Your task to perform on an android device: Open the Play Movies app and select the watchlist tab. Image 0: 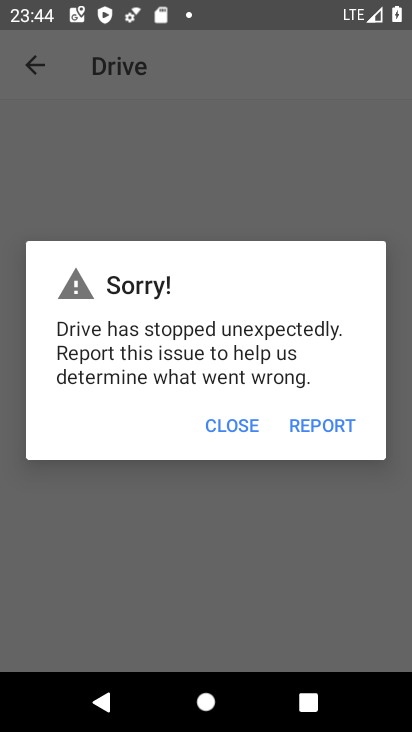
Step 0: press home button
Your task to perform on an android device: Open the Play Movies app and select the watchlist tab. Image 1: 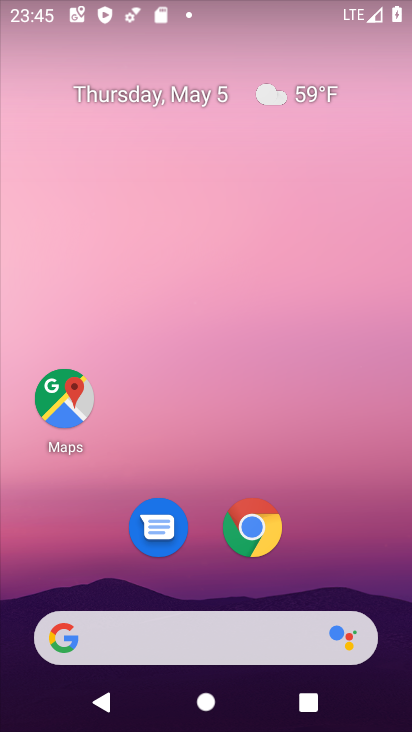
Step 1: drag from (205, 572) to (205, 99)
Your task to perform on an android device: Open the Play Movies app and select the watchlist tab. Image 2: 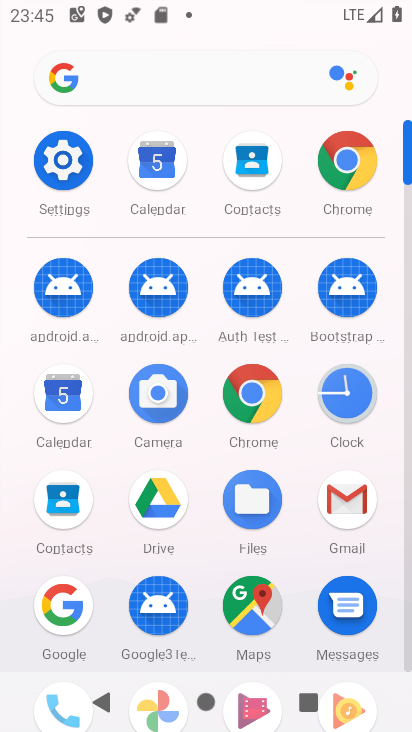
Step 2: drag from (287, 560) to (336, 191)
Your task to perform on an android device: Open the Play Movies app and select the watchlist tab. Image 3: 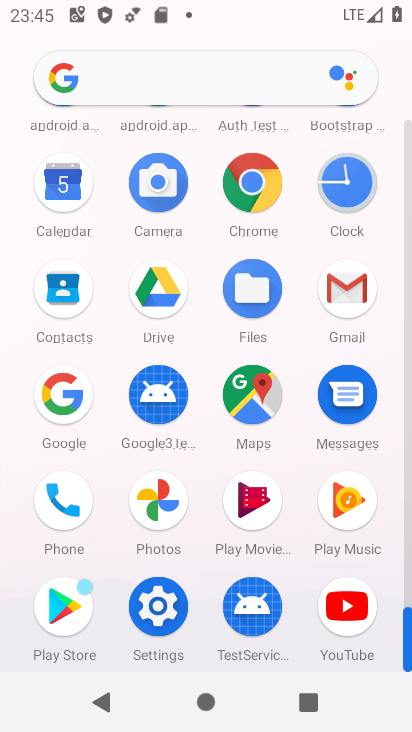
Step 3: click (272, 524)
Your task to perform on an android device: Open the Play Movies app and select the watchlist tab. Image 4: 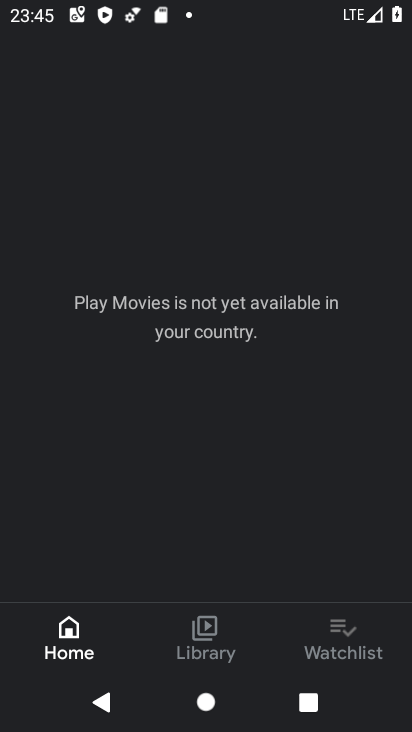
Step 4: click (313, 642)
Your task to perform on an android device: Open the Play Movies app and select the watchlist tab. Image 5: 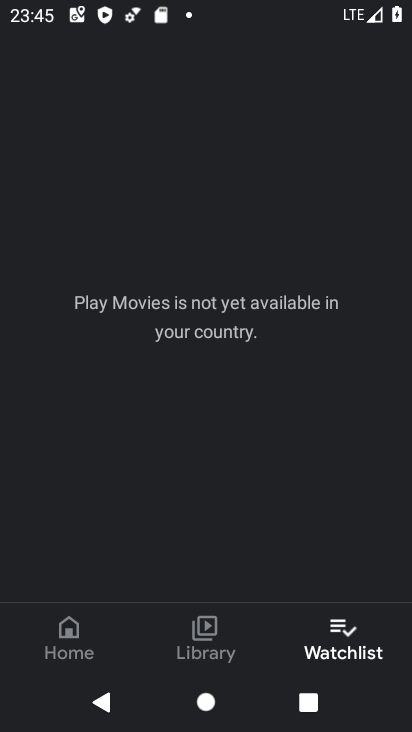
Step 5: task complete